Your task to perform on an android device: Open Yahoo.com Image 0: 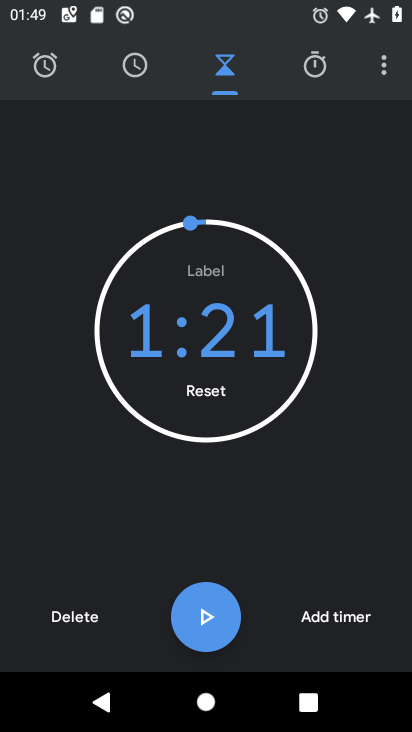
Step 0: press home button
Your task to perform on an android device: Open Yahoo.com Image 1: 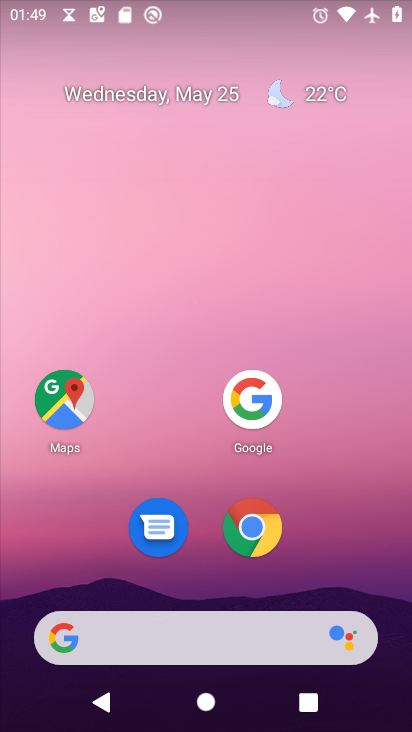
Step 1: click (253, 521)
Your task to perform on an android device: Open Yahoo.com Image 2: 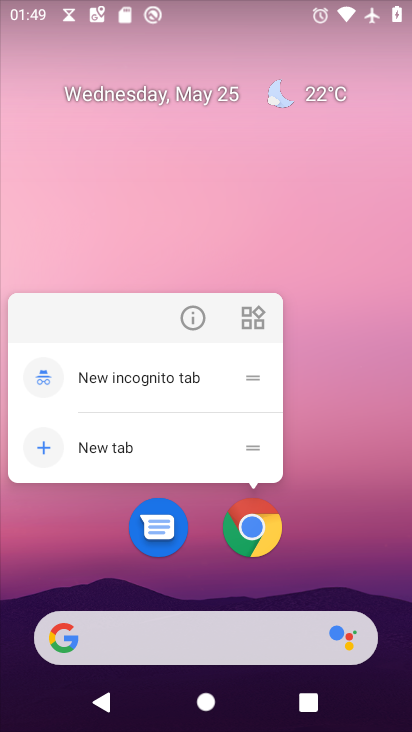
Step 2: click (249, 543)
Your task to perform on an android device: Open Yahoo.com Image 3: 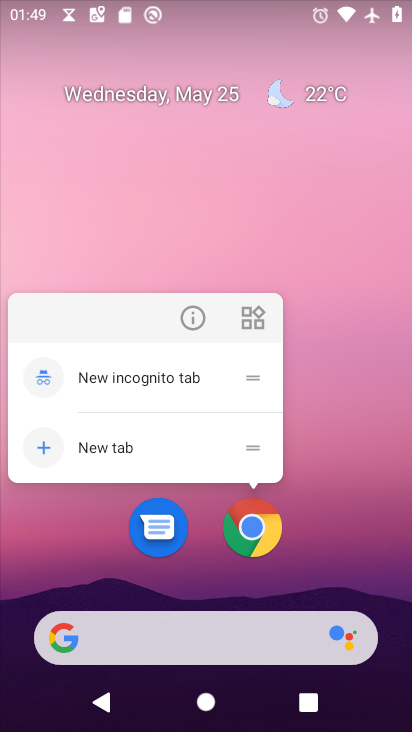
Step 3: click (252, 537)
Your task to perform on an android device: Open Yahoo.com Image 4: 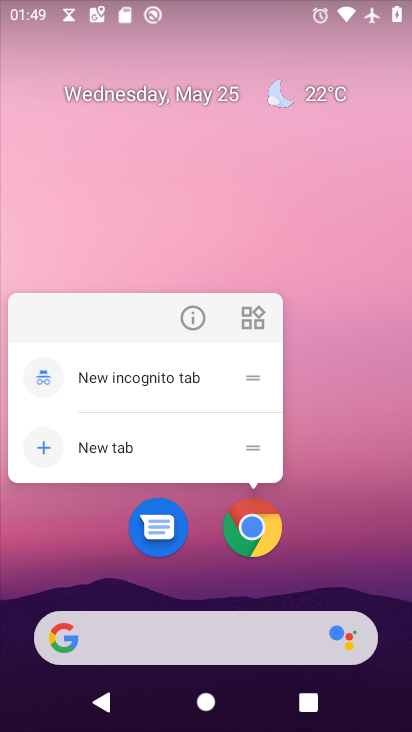
Step 4: click (259, 529)
Your task to perform on an android device: Open Yahoo.com Image 5: 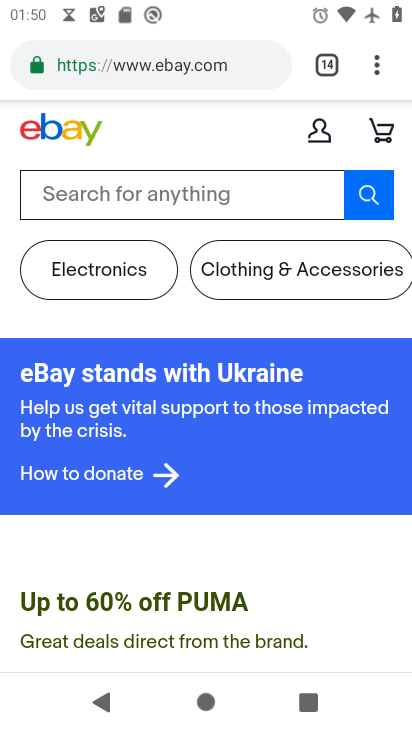
Step 5: click (378, 77)
Your task to perform on an android device: Open Yahoo.com Image 6: 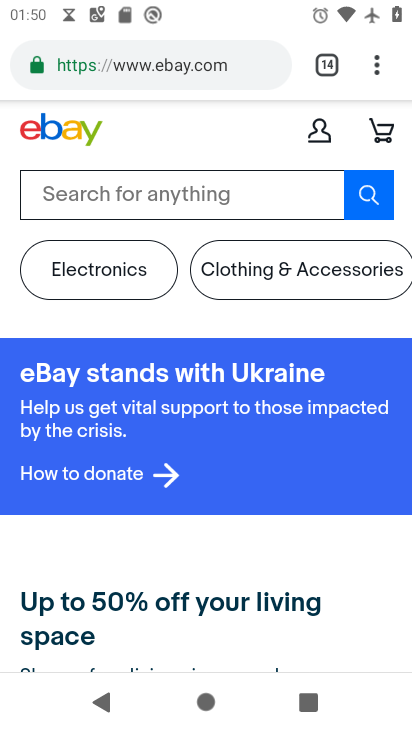
Step 6: drag from (375, 60) to (264, 131)
Your task to perform on an android device: Open Yahoo.com Image 7: 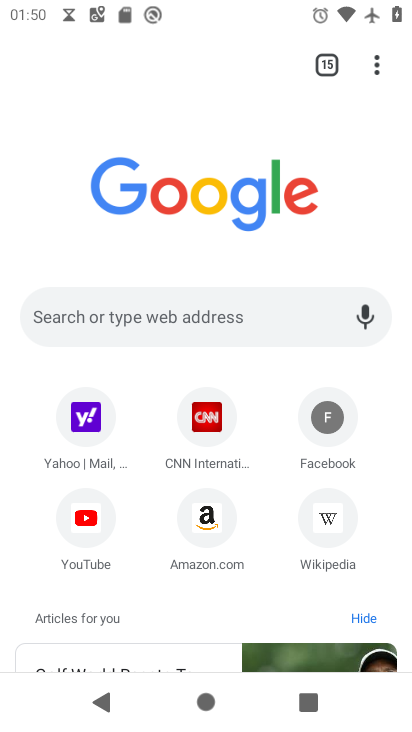
Step 7: click (76, 404)
Your task to perform on an android device: Open Yahoo.com Image 8: 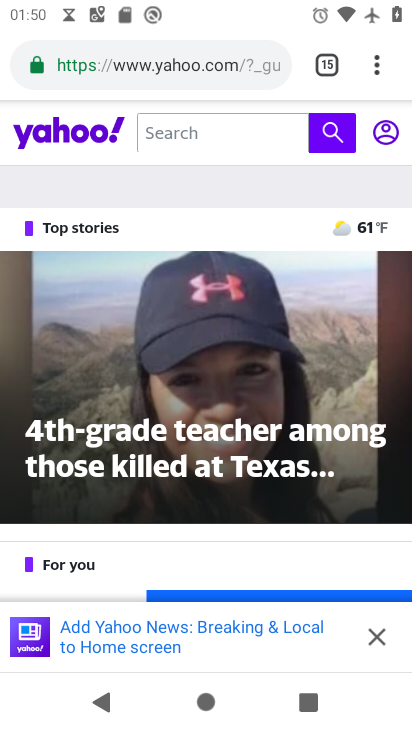
Step 8: task complete